Your task to perform on an android device: uninstall "Move to iOS" Image 0: 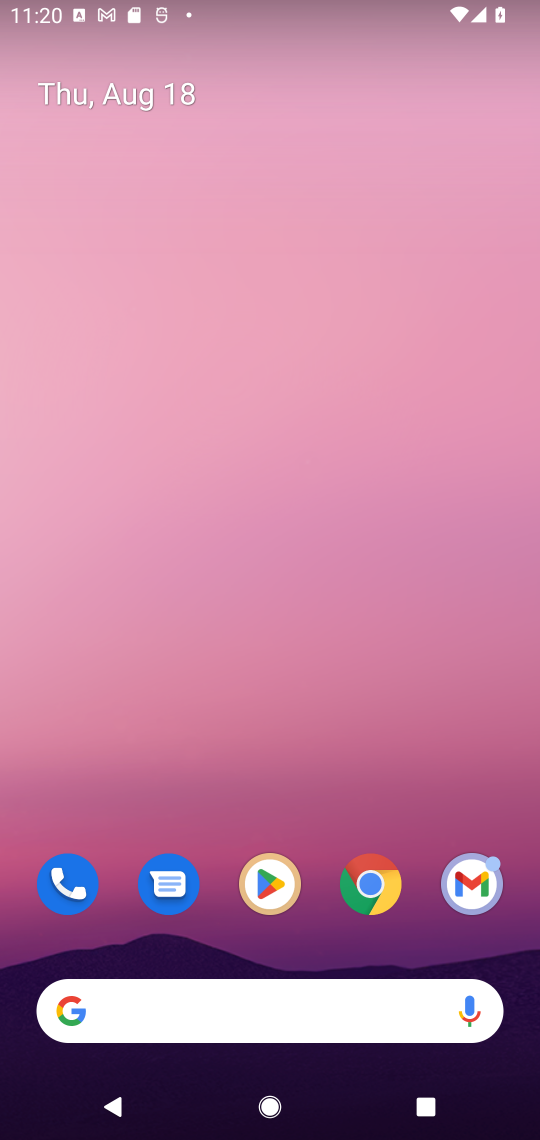
Step 0: drag from (286, 1001) to (316, 221)
Your task to perform on an android device: uninstall "Move to iOS" Image 1: 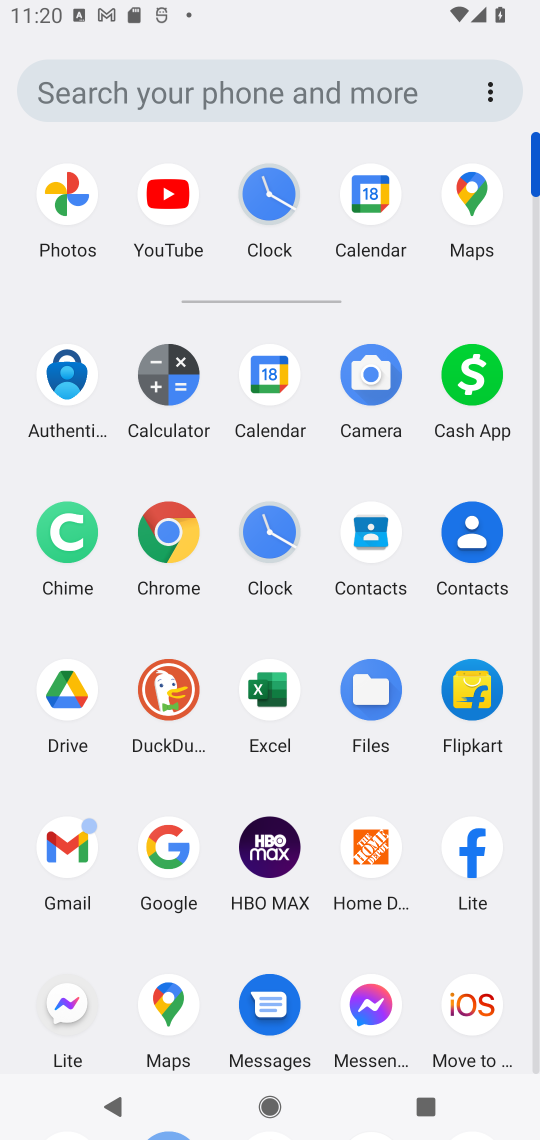
Step 1: drag from (317, 982) to (454, 288)
Your task to perform on an android device: uninstall "Move to iOS" Image 2: 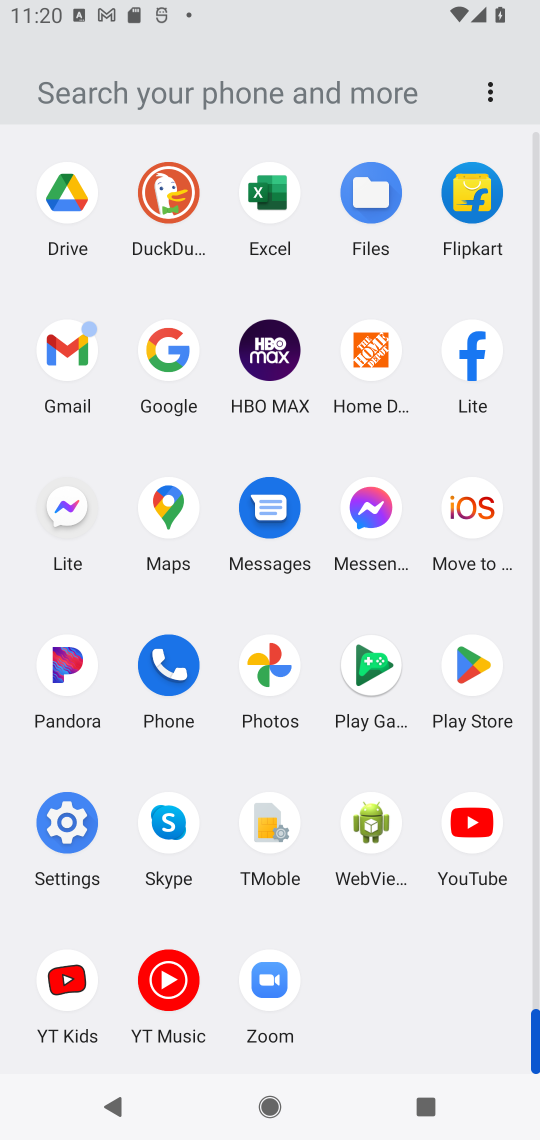
Step 2: click (477, 669)
Your task to perform on an android device: uninstall "Move to iOS" Image 3: 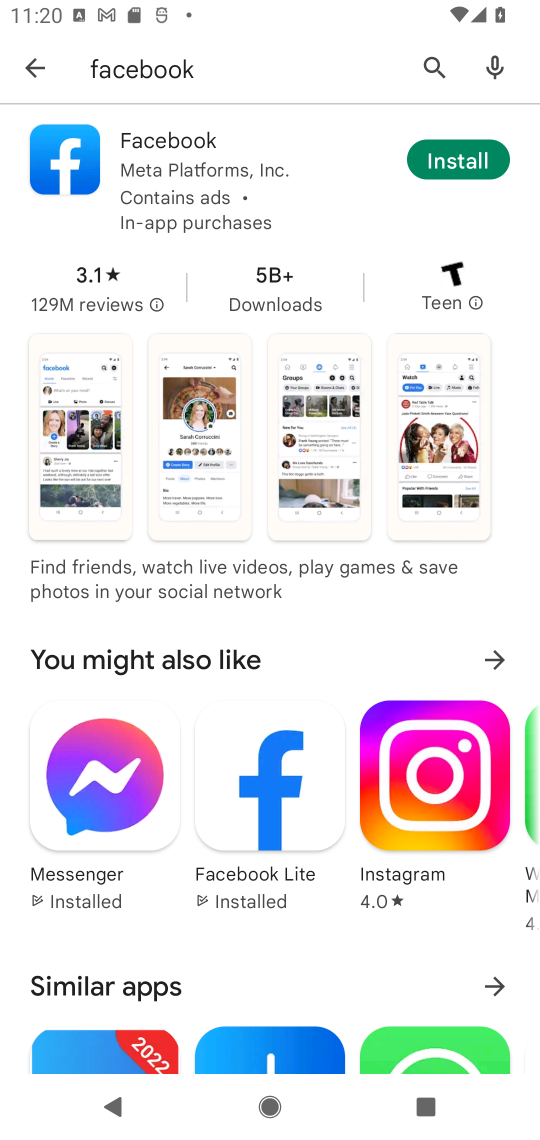
Step 3: press back button
Your task to perform on an android device: uninstall "Move to iOS" Image 4: 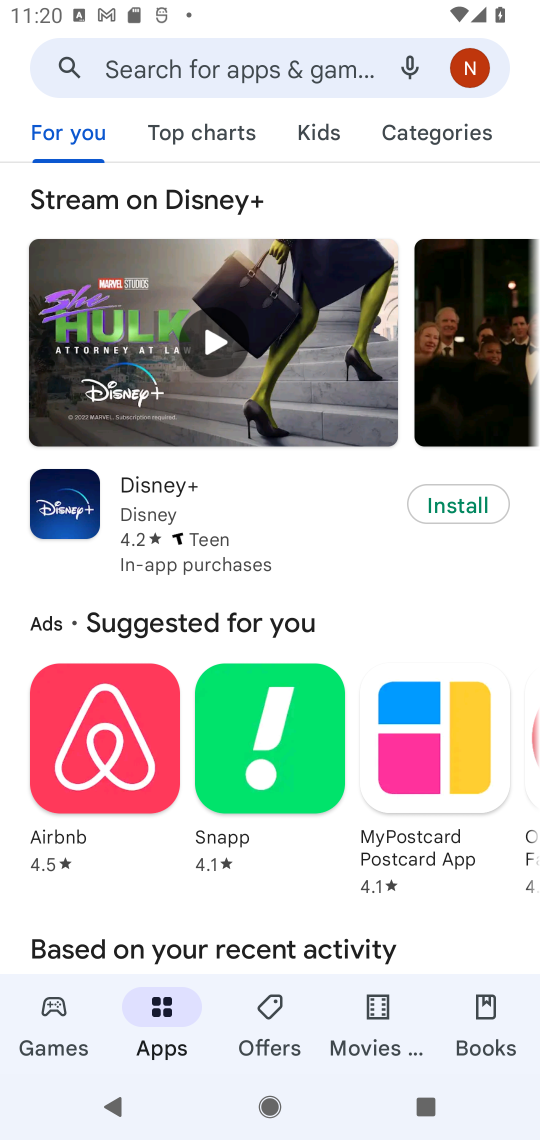
Step 4: click (311, 68)
Your task to perform on an android device: uninstall "Move to iOS" Image 5: 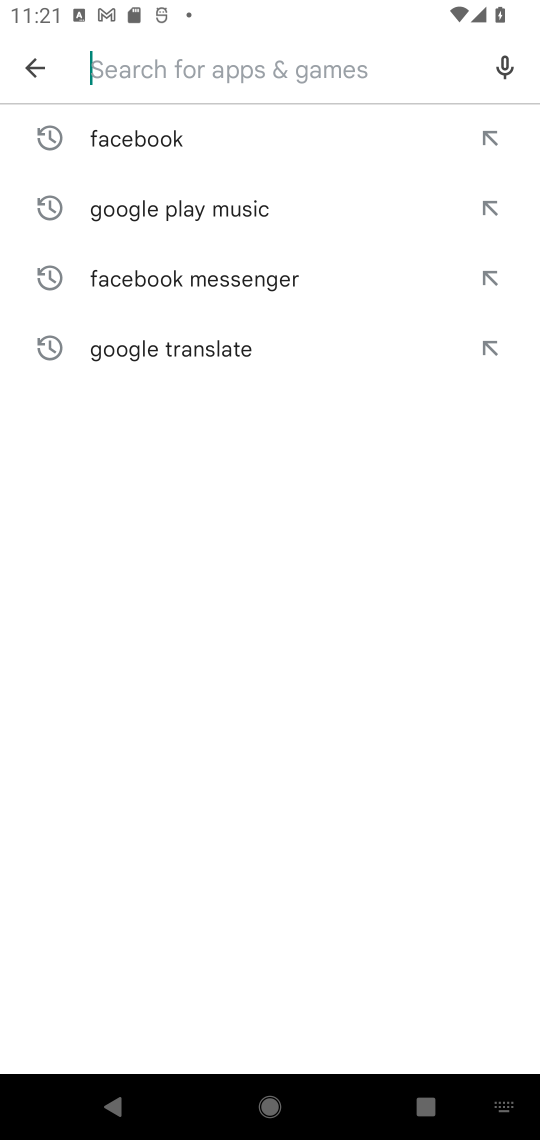
Step 5: type "Move to iOS"
Your task to perform on an android device: uninstall "Move to iOS" Image 6: 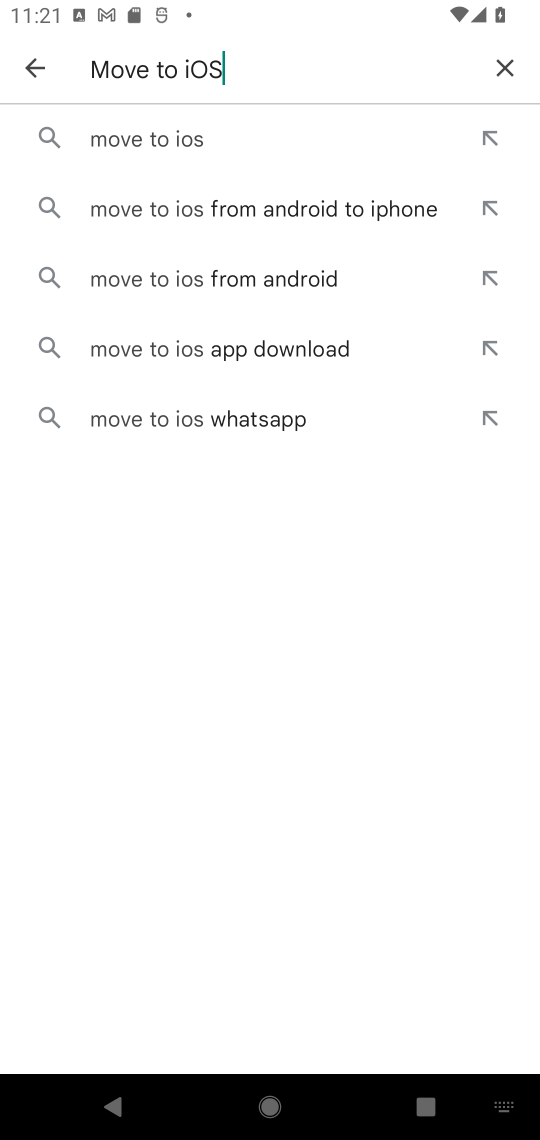
Step 6: click (167, 129)
Your task to perform on an android device: uninstall "Move to iOS" Image 7: 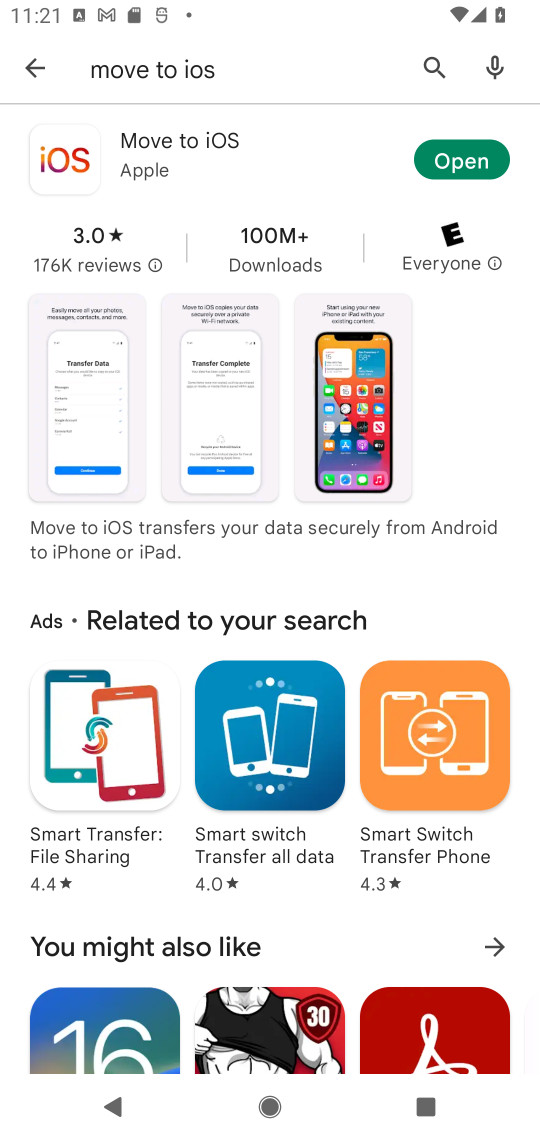
Step 7: click (180, 151)
Your task to perform on an android device: uninstall "Move to iOS" Image 8: 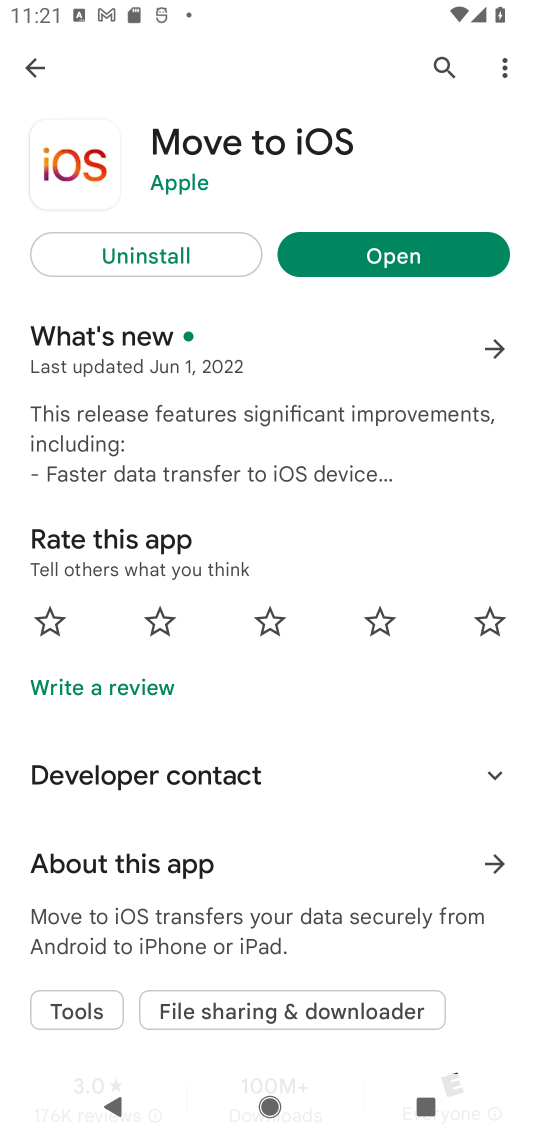
Step 8: click (198, 261)
Your task to perform on an android device: uninstall "Move to iOS" Image 9: 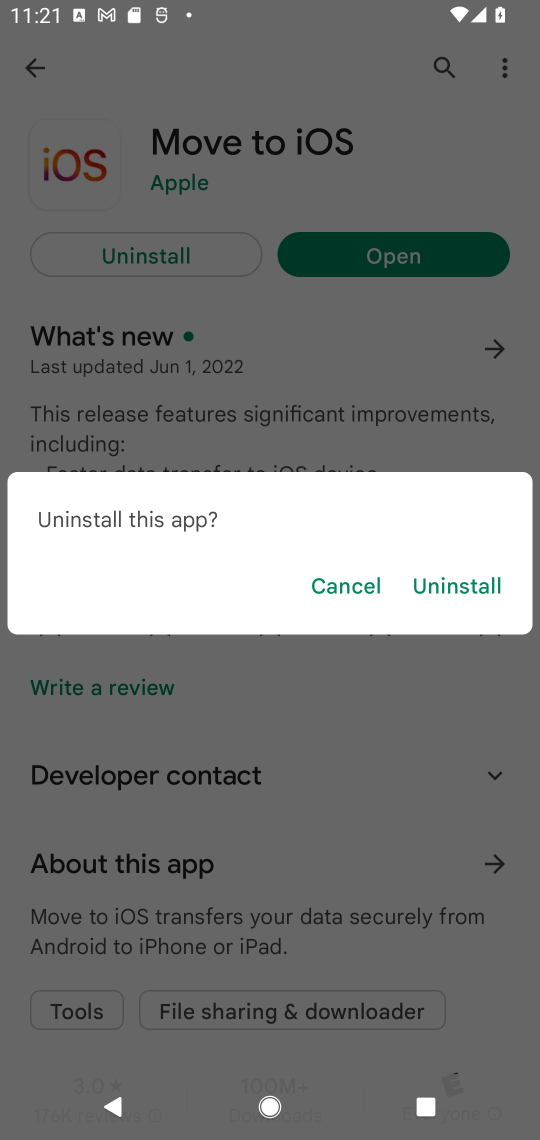
Step 9: click (460, 587)
Your task to perform on an android device: uninstall "Move to iOS" Image 10: 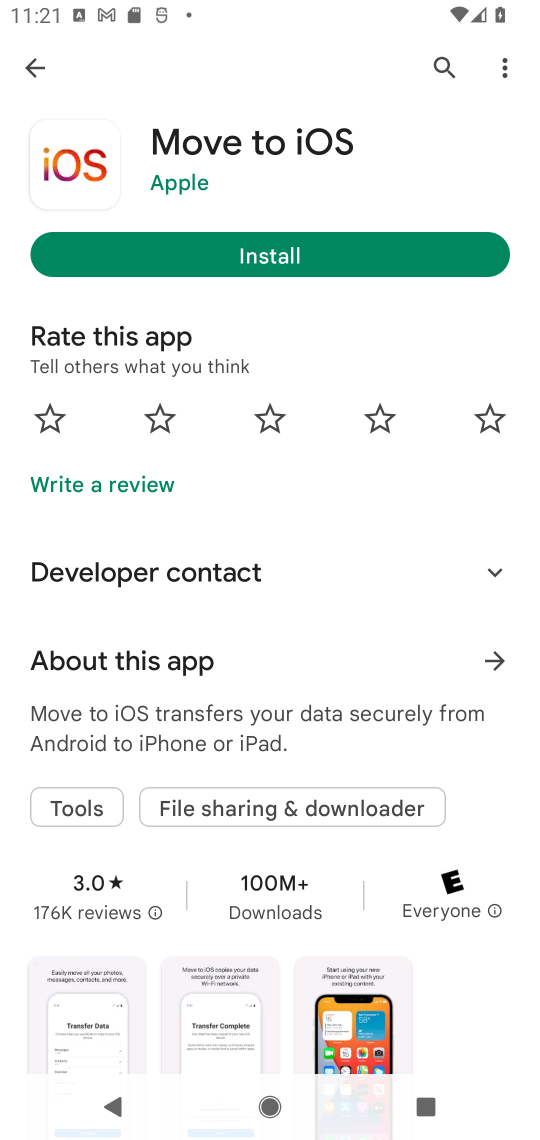
Step 10: task complete